Your task to perform on an android device: Open maps Image 0: 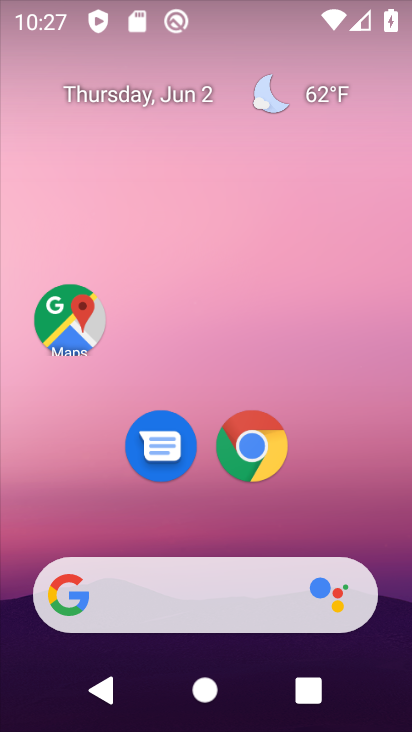
Step 0: click (65, 314)
Your task to perform on an android device: Open maps Image 1: 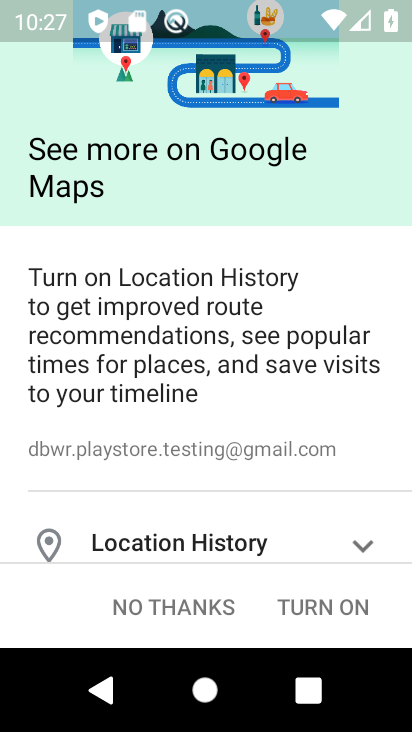
Step 1: click (164, 616)
Your task to perform on an android device: Open maps Image 2: 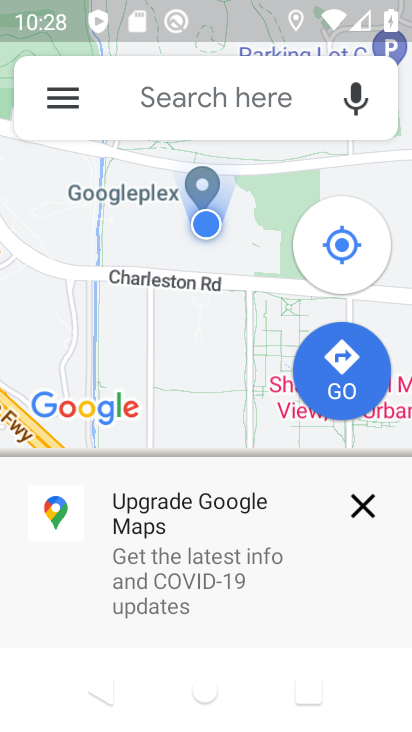
Step 2: task complete